Your task to perform on an android device: turn on showing notifications on the lock screen Image 0: 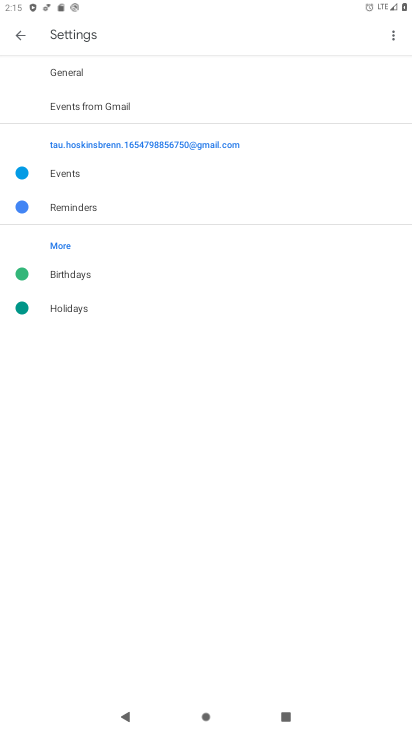
Step 0: press home button
Your task to perform on an android device: turn on showing notifications on the lock screen Image 1: 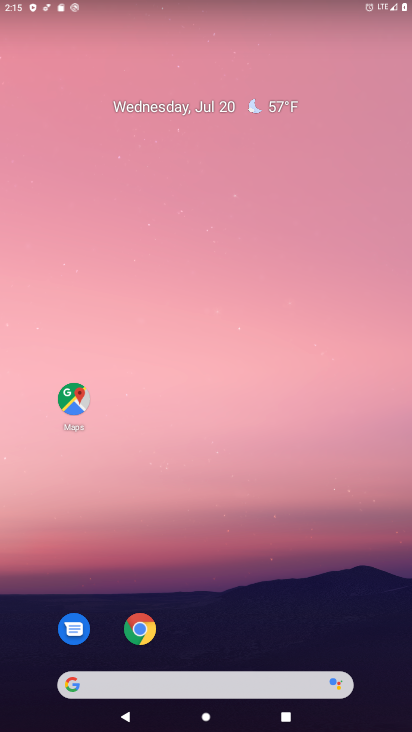
Step 1: drag from (355, 605) to (356, 138)
Your task to perform on an android device: turn on showing notifications on the lock screen Image 2: 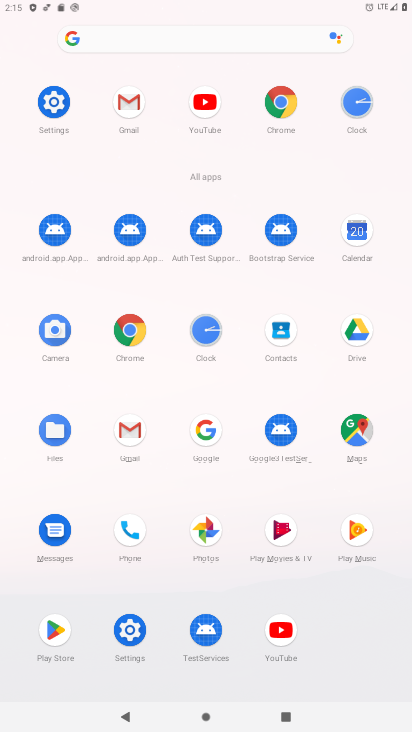
Step 2: click (128, 627)
Your task to perform on an android device: turn on showing notifications on the lock screen Image 3: 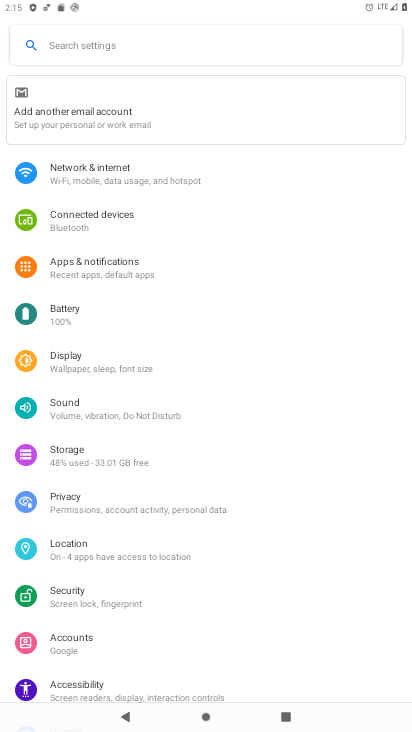
Step 3: click (84, 264)
Your task to perform on an android device: turn on showing notifications on the lock screen Image 4: 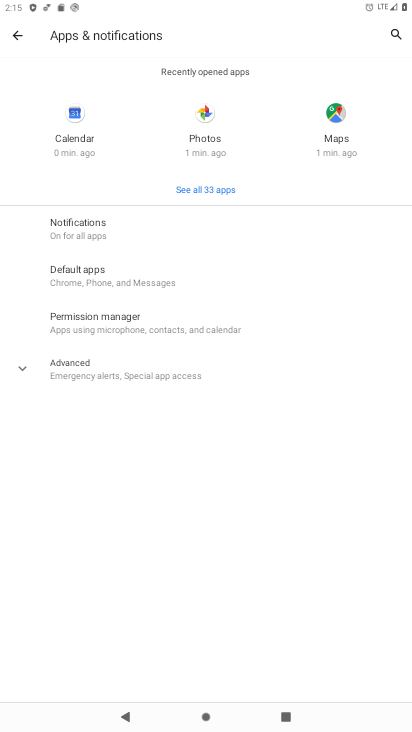
Step 4: click (78, 225)
Your task to perform on an android device: turn on showing notifications on the lock screen Image 5: 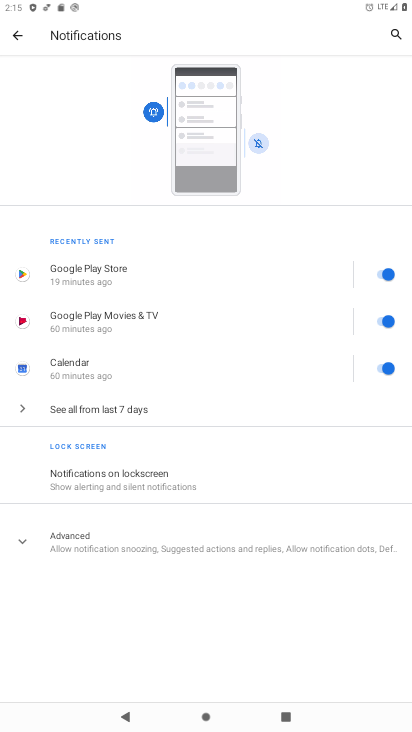
Step 5: click (98, 479)
Your task to perform on an android device: turn on showing notifications on the lock screen Image 6: 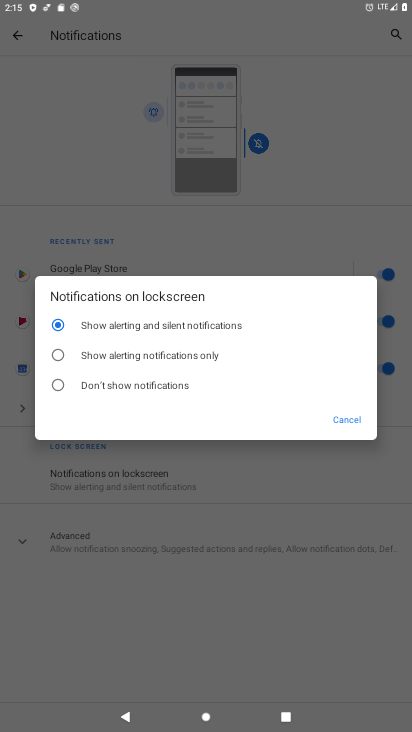
Step 6: click (53, 352)
Your task to perform on an android device: turn on showing notifications on the lock screen Image 7: 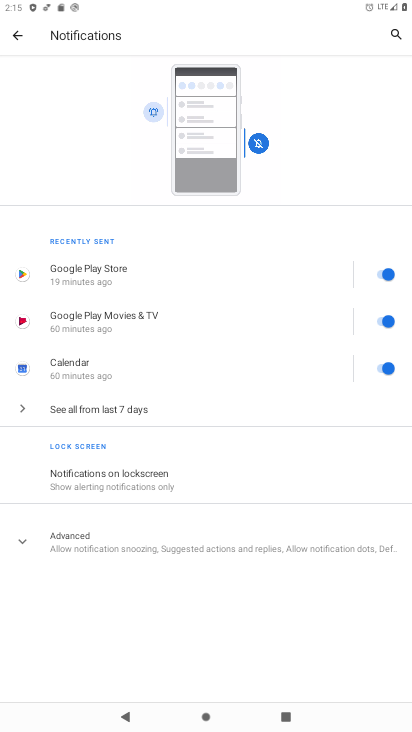
Step 7: task complete